Your task to perform on an android device: Open battery settings Image 0: 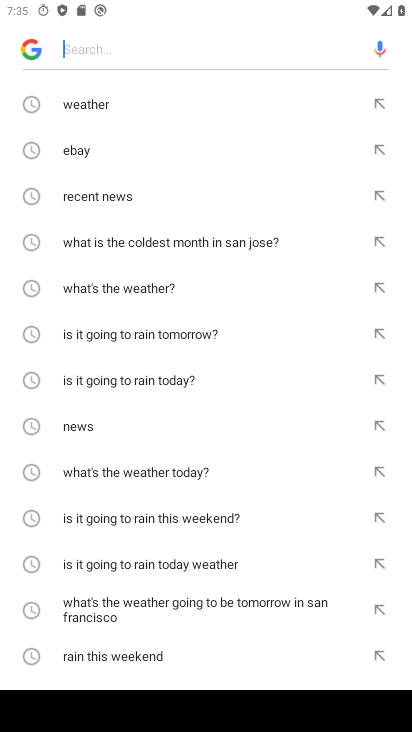
Step 0: press home button
Your task to perform on an android device: Open battery settings Image 1: 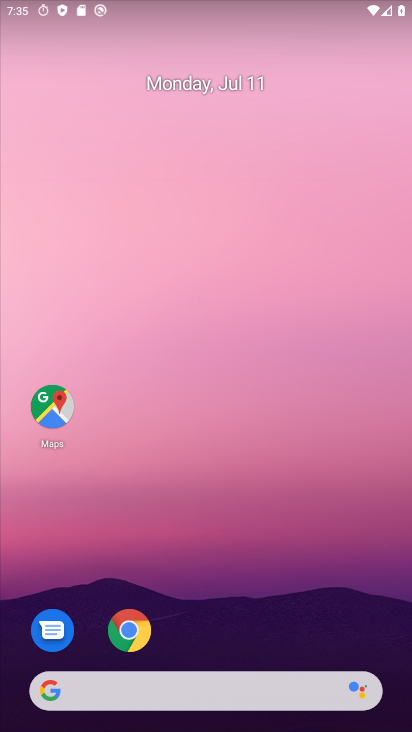
Step 1: drag from (215, 687) to (288, 75)
Your task to perform on an android device: Open battery settings Image 2: 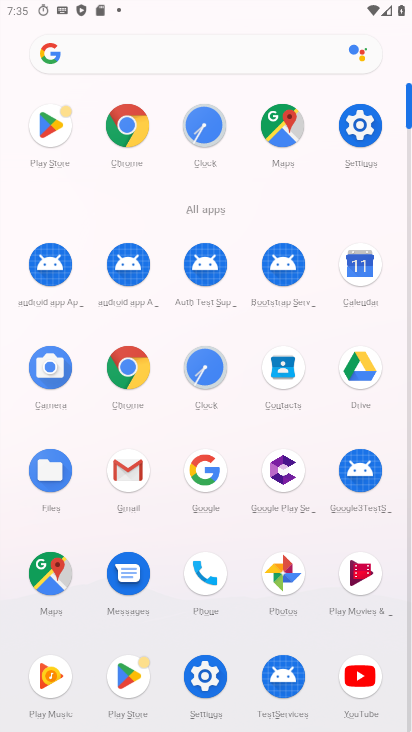
Step 2: click (365, 126)
Your task to perform on an android device: Open battery settings Image 3: 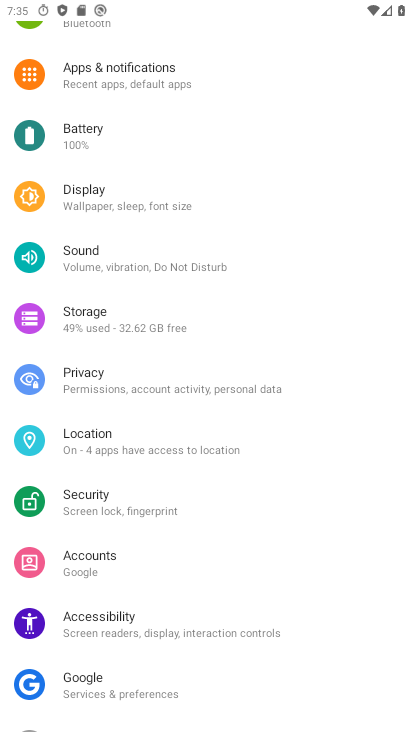
Step 3: click (97, 134)
Your task to perform on an android device: Open battery settings Image 4: 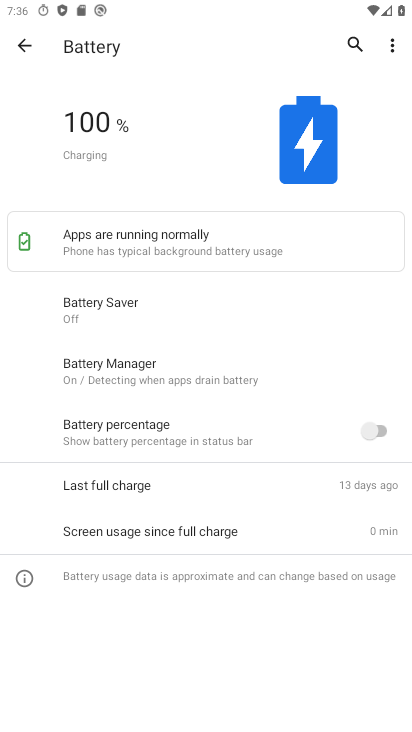
Step 4: task complete